Your task to perform on an android device: check out phone information Image 0: 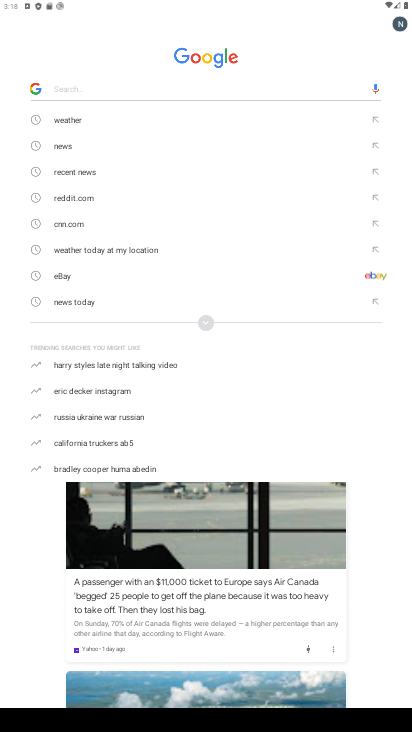
Step 0: press home button
Your task to perform on an android device: check out phone information Image 1: 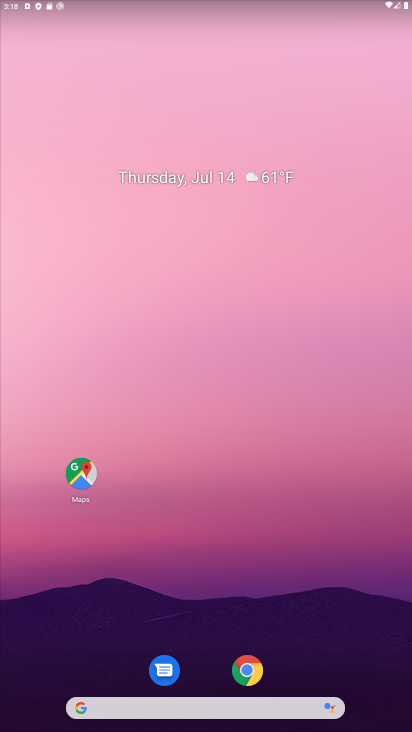
Step 1: drag from (208, 655) to (204, 73)
Your task to perform on an android device: check out phone information Image 2: 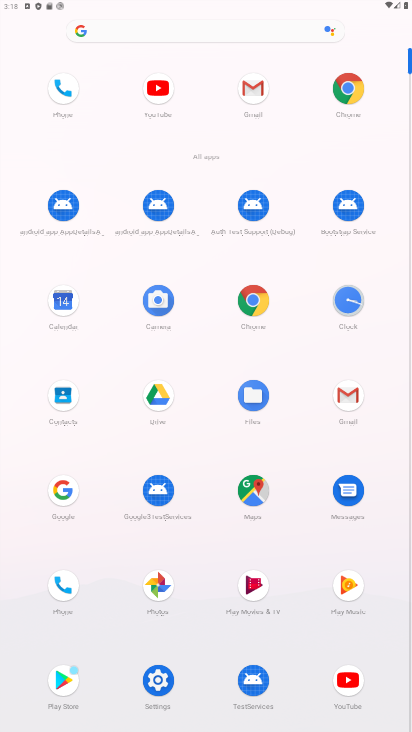
Step 2: click (166, 673)
Your task to perform on an android device: check out phone information Image 3: 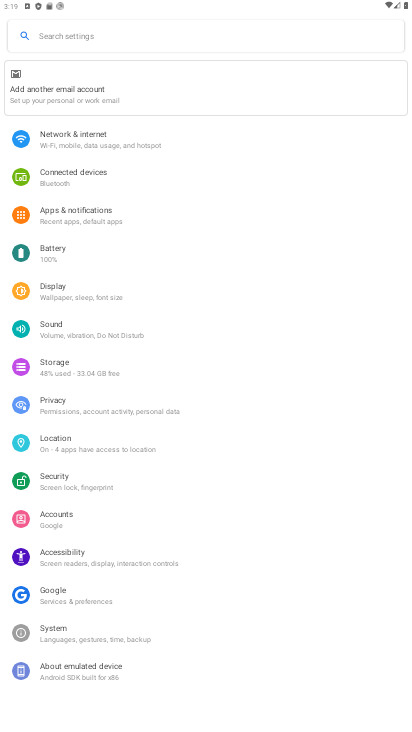
Step 3: click (78, 669)
Your task to perform on an android device: check out phone information Image 4: 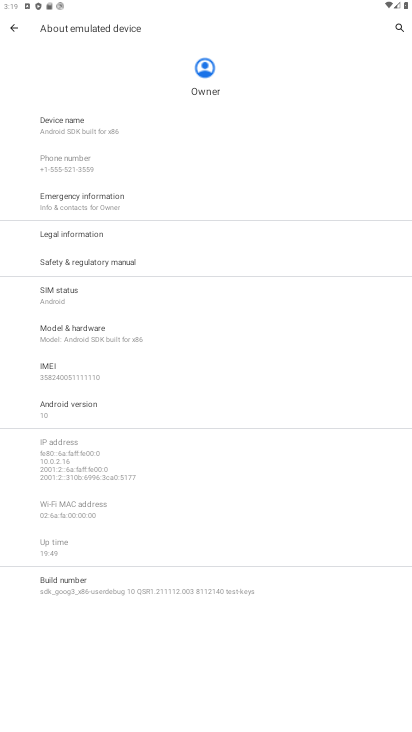
Step 4: task complete